Your task to perform on an android device: turn smart compose on in the gmail app Image 0: 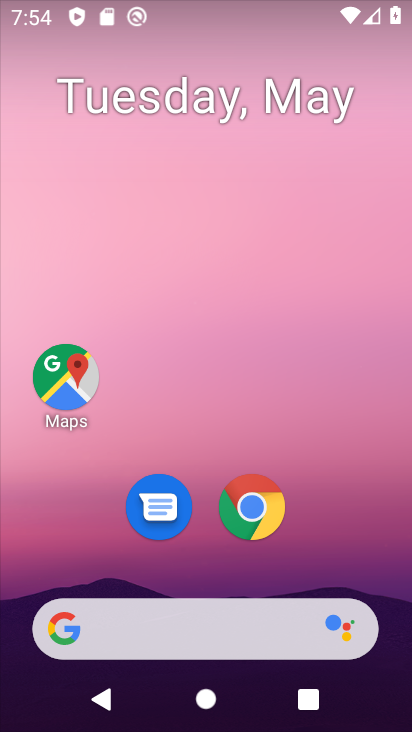
Step 0: click (240, 25)
Your task to perform on an android device: turn smart compose on in the gmail app Image 1: 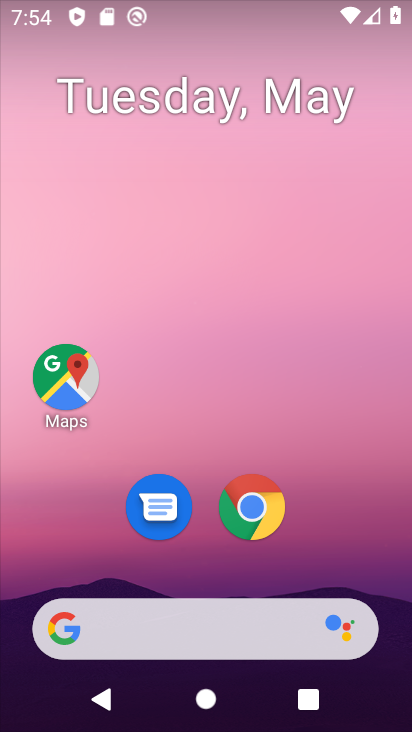
Step 1: drag from (385, 614) to (264, 36)
Your task to perform on an android device: turn smart compose on in the gmail app Image 2: 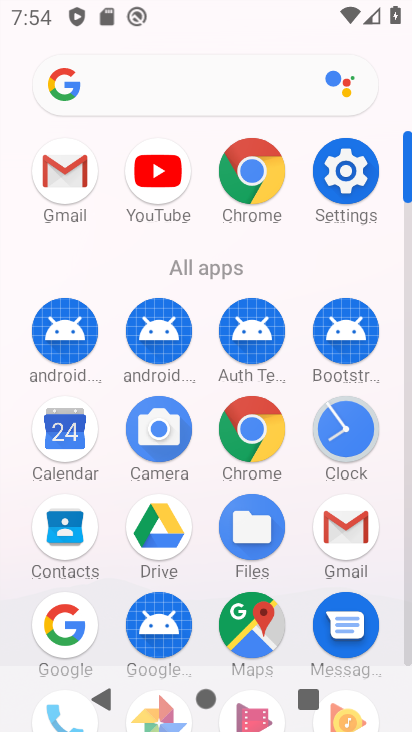
Step 2: click (12, 274)
Your task to perform on an android device: turn smart compose on in the gmail app Image 3: 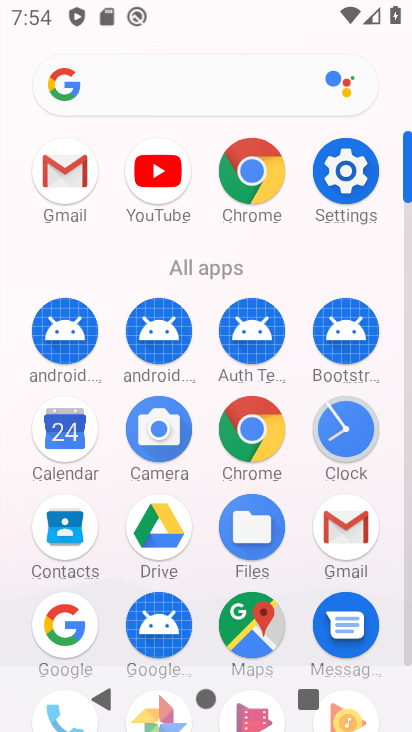
Step 3: click (7, 253)
Your task to perform on an android device: turn smart compose on in the gmail app Image 4: 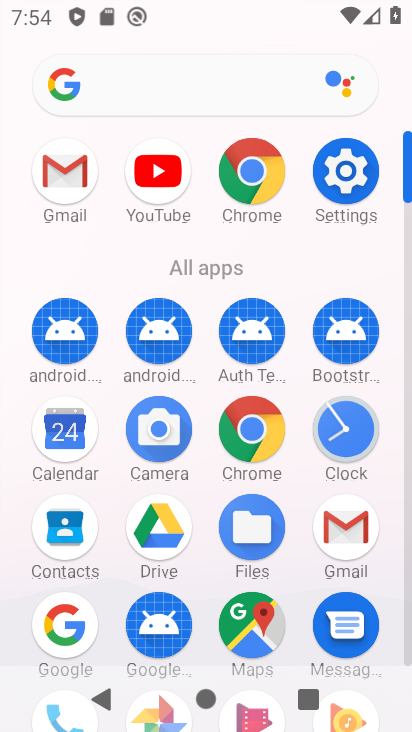
Step 4: click (341, 524)
Your task to perform on an android device: turn smart compose on in the gmail app Image 5: 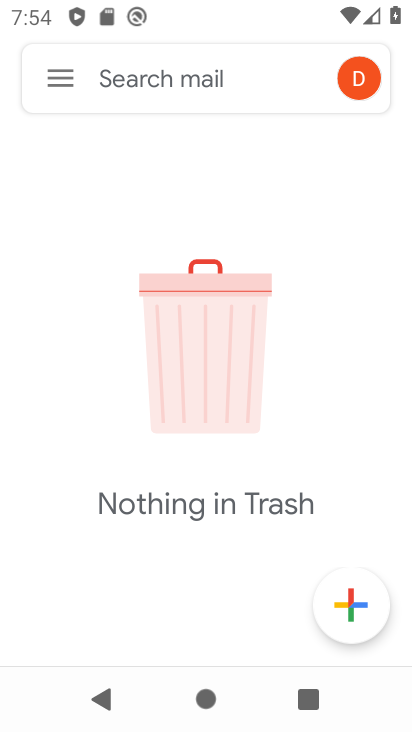
Step 5: click (55, 69)
Your task to perform on an android device: turn smart compose on in the gmail app Image 6: 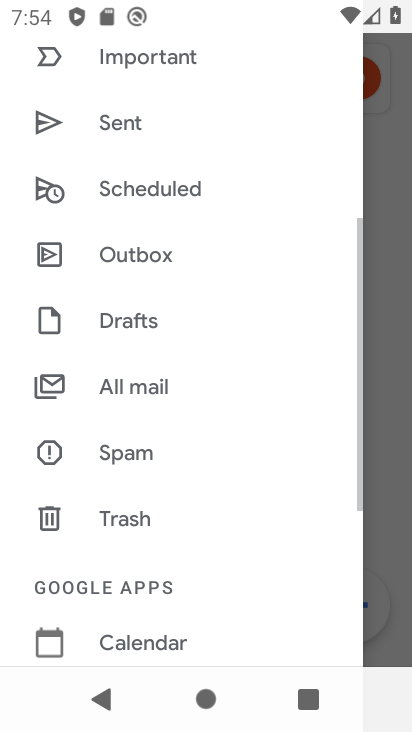
Step 6: drag from (225, 608) to (233, 157)
Your task to perform on an android device: turn smart compose on in the gmail app Image 7: 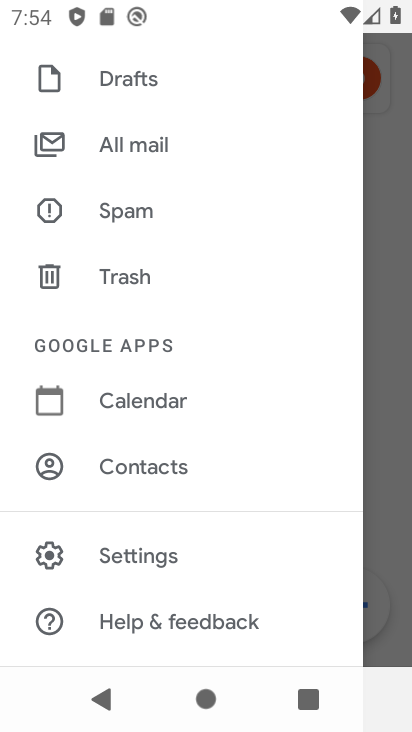
Step 7: click (116, 549)
Your task to perform on an android device: turn smart compose on in the gmail app Image 8: 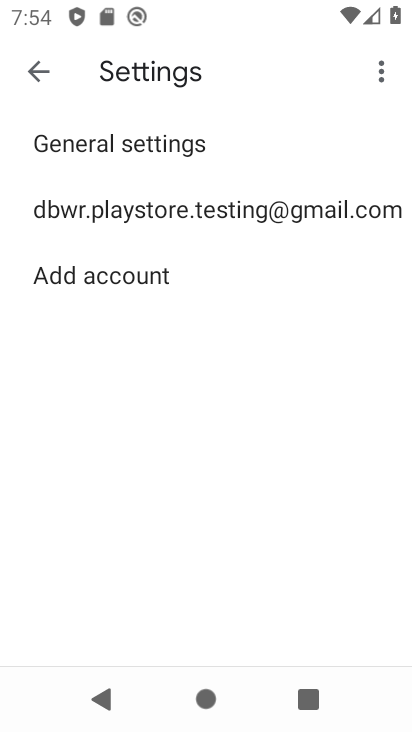
Step 8: click (107, 208)
Your task to perform on an android device: turn smart compose on in the gmail app Image 9: 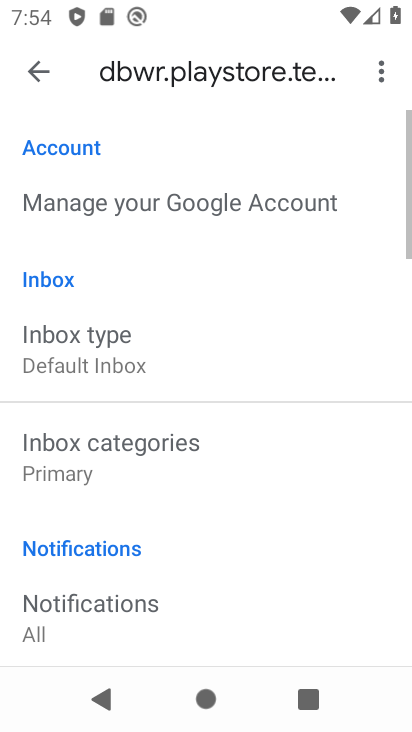
Step 9: task complete